Your task to perform on an android device: search for starred emails in the gmail app Image 0: 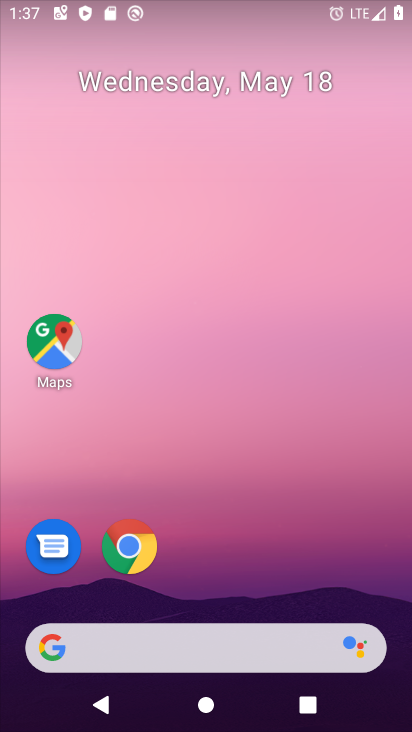
Step 0: drag from (222, 672) to (218, 129)
Your task to perform on an android device: search for starred emails in the gmail app Image 1: 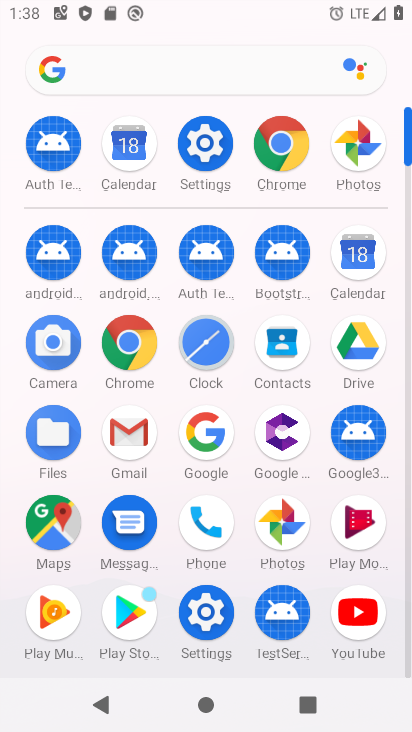
Step 1: click (142, 466)
Your task to perform on an android device: search for starred emails in the gmail app Image 2: 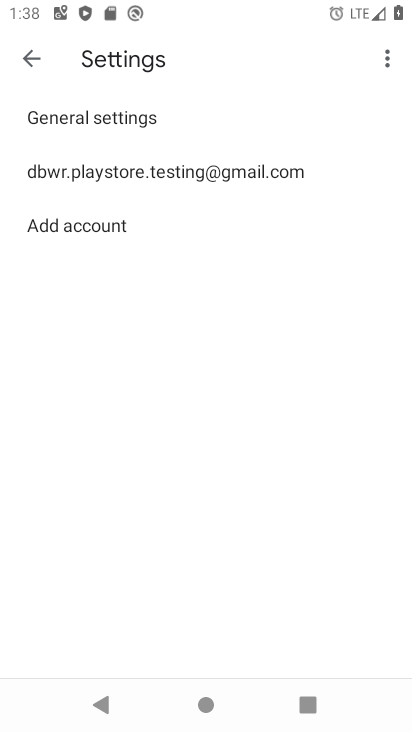
Step 2: click (23, 47)
Your task to perform on an android device: search for starred emails in the gmail app Image 3: 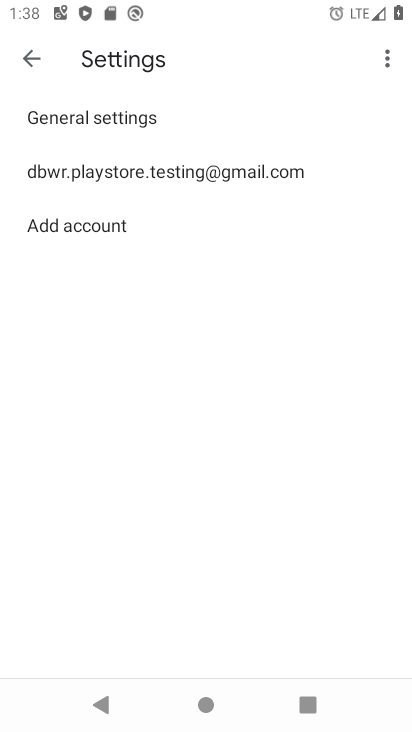
Step 3: click (30, 76)
Your task to perform on an android device: search for starred emails in the gmail app Image 4: 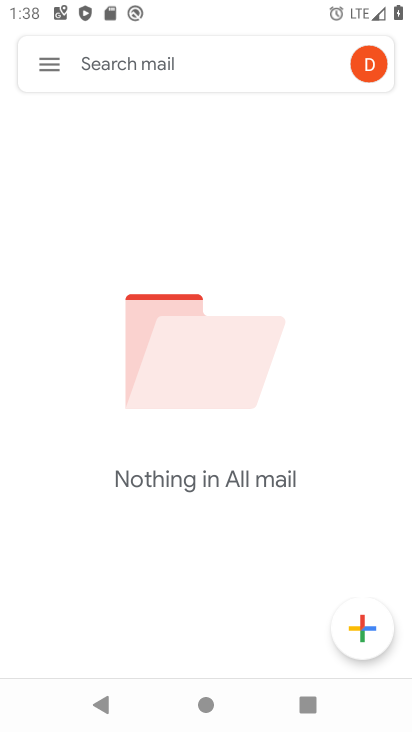
Step 4: click (30, 76)
Your task to perform on an android device: search for starred emails in the gmail app Image 5: 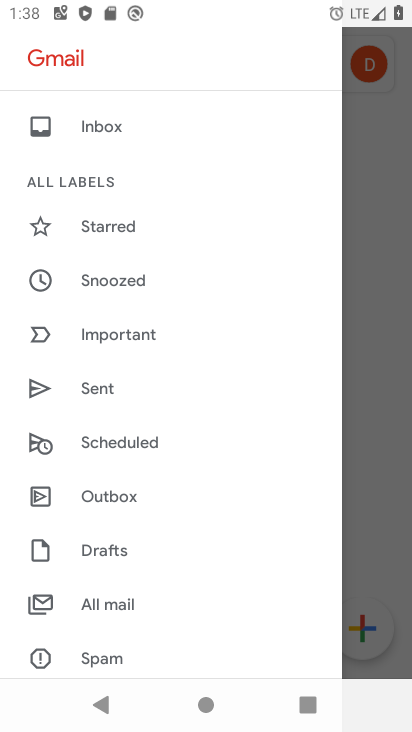
Step 5: click (80, 230)
Your task to perform on an android device: search for starred emails in the gmail app Image 6: 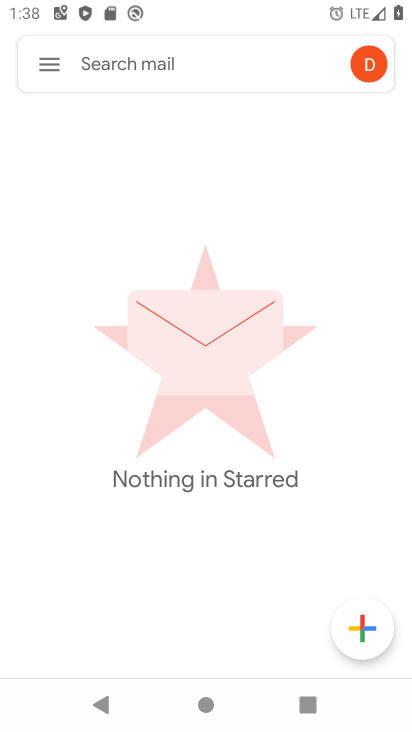
Step 6: task complete